Your task to perform on an android device: toggle location history Image 0: 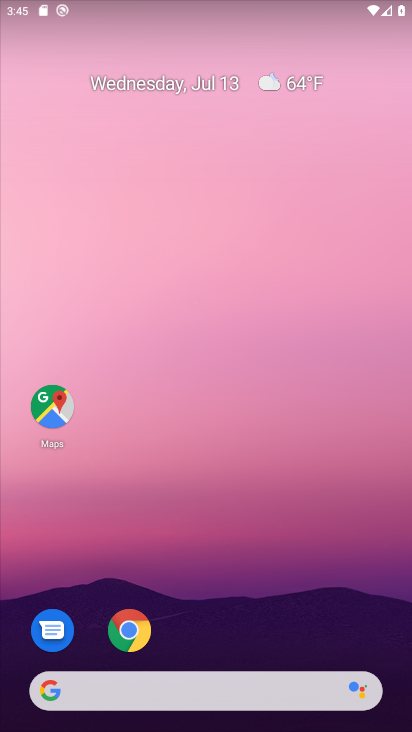
Step 0: drag from (222, 660) to (258, 78)
Your task to perform on an android device: toggle location history Image 1: 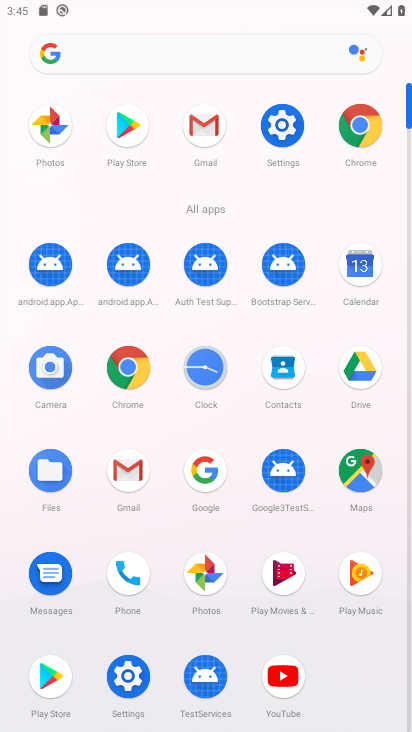
Step 1: click (282, 117)
Your task to perform on an android device: toggle location history Image 2: 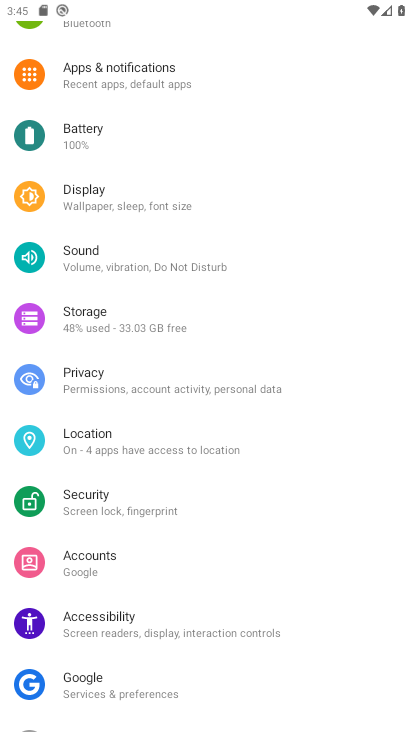
Step 2: click (181, 445)
Your task to perform on an android device: toggle location history Image 3: 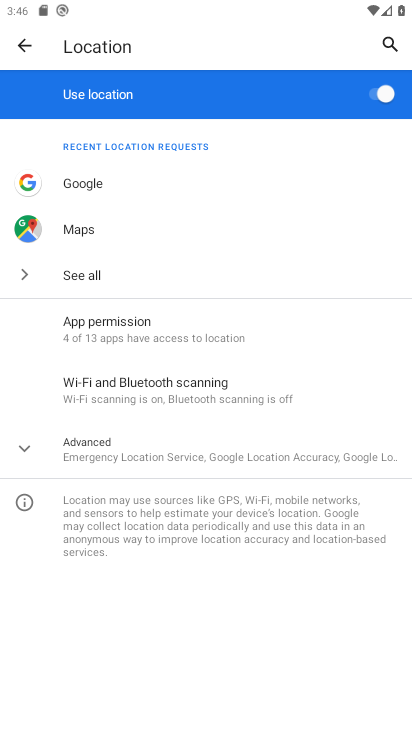
Step 3: click (105, 444)
Your task to perform on an android device: toggle location history Image 4: 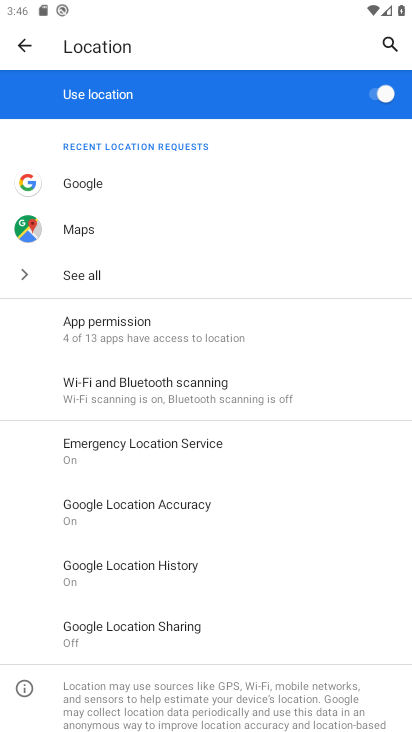
Step 4: click (119, 559)
Your task to perform on an android device: toggle location history Image 5: 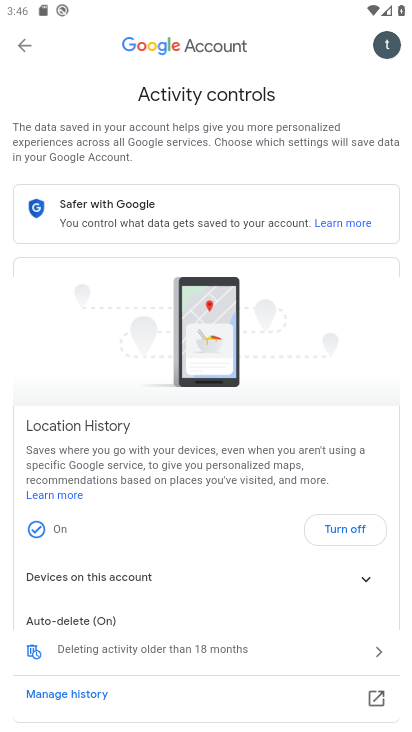
Step 5: click (348, 522)
Your task to perform on an android device: toggle location history Image 6: 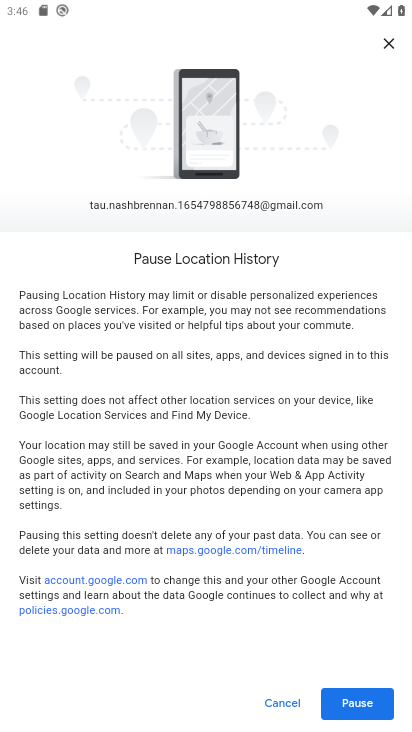
Step 6: click (330, 471)
Your task to perform on an android device: toggle location history Image 7: 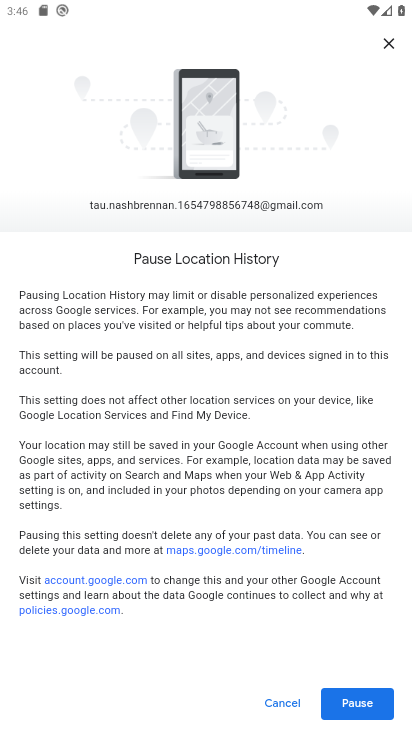
Step 7: click (355, 691)
Your task to perform on an android device: toggle location history Image 8: 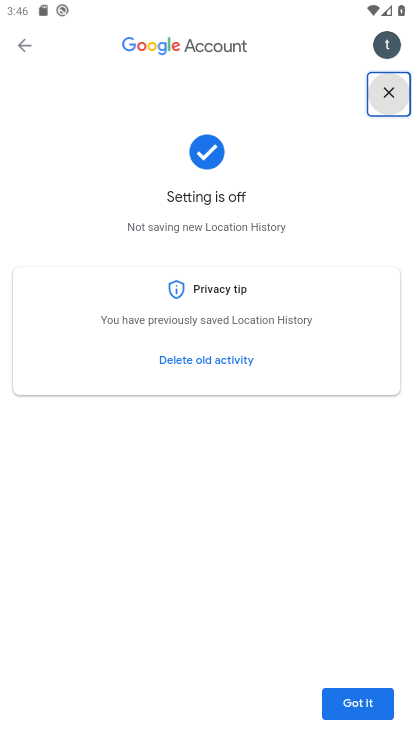
Step 8: click (344, 709)
Your task to perform on an android device: toggle location history Image 9: 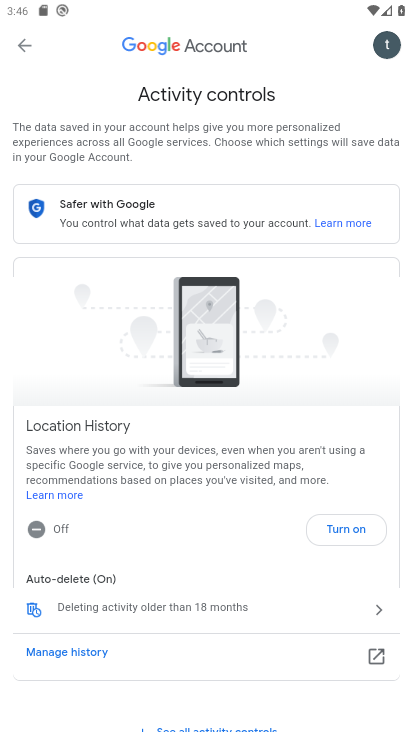
Step 9: task complete